Your task to perform on an android device: turn on sleep mode Image 0: 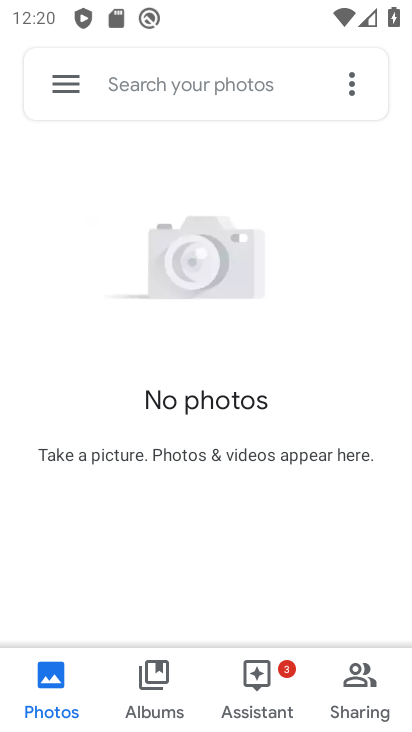
Step 0: press back button
Your task to perform on an android device: turn on sleep mode Image 1: 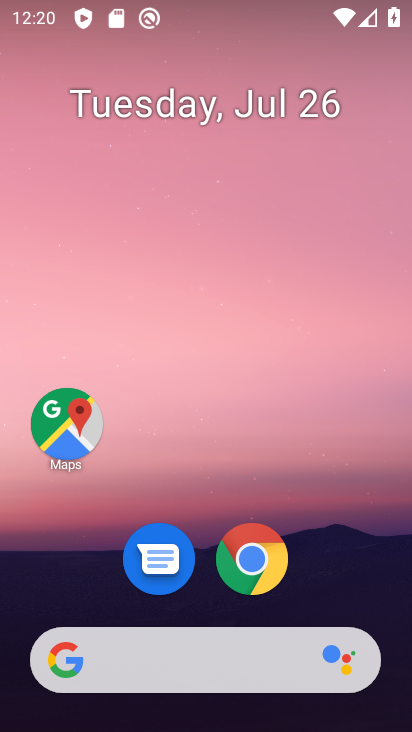
Step 1: drag from (184, 613) to (291, 15)
Your task to perform on an android device: turn on sleep mode Image 2: 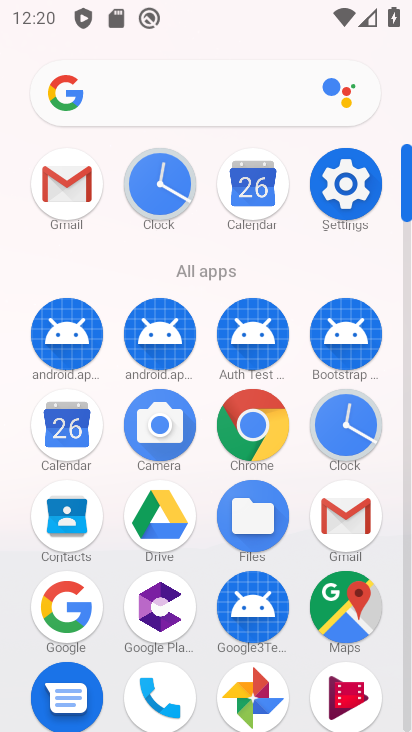
Step 2: click (356, 211)
Your task to perform on an android device: turn on sleep mode Image 3: 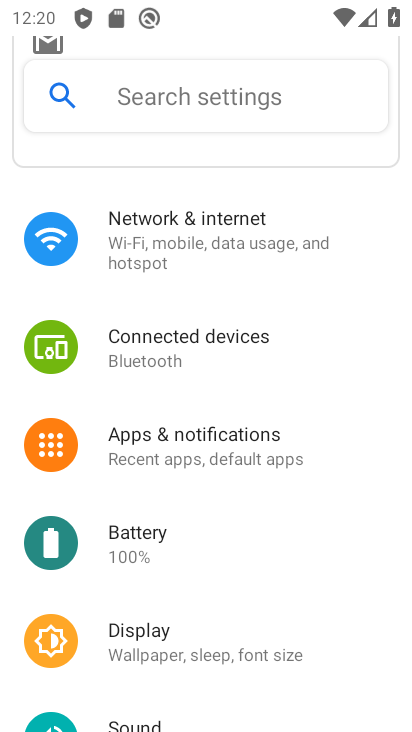
Step 3: click (208, 87)
Your task to perform on an android device: turn on sleep mode Image 4: 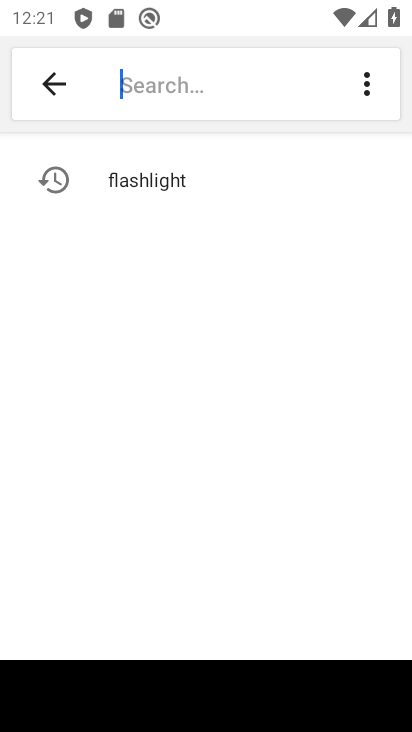
Step 4: type "sleepmode"
Your task to perform on an android device: turn on sleep mode Image 5: 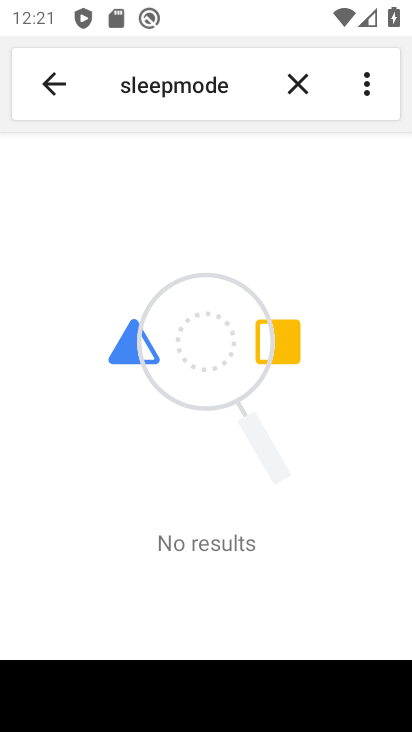
Step 5: task complete